Your task to perform on an android device: change notification settings in the gmail app Image 0: 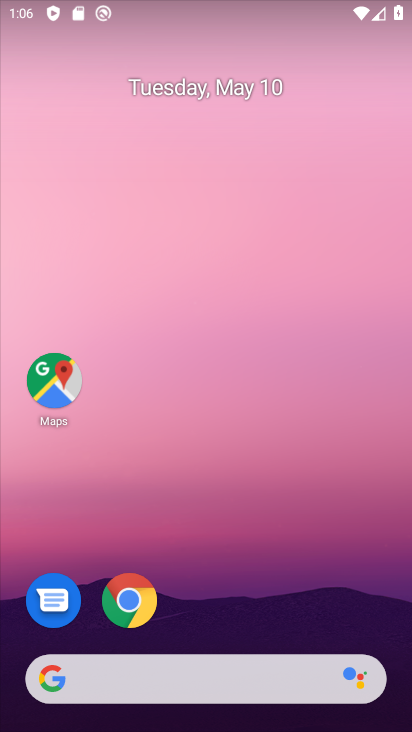
Step 0: drag from (193, 603) to (199, 45)
Your task to perform on an android device: change notification settings in the gmail app Image 1: 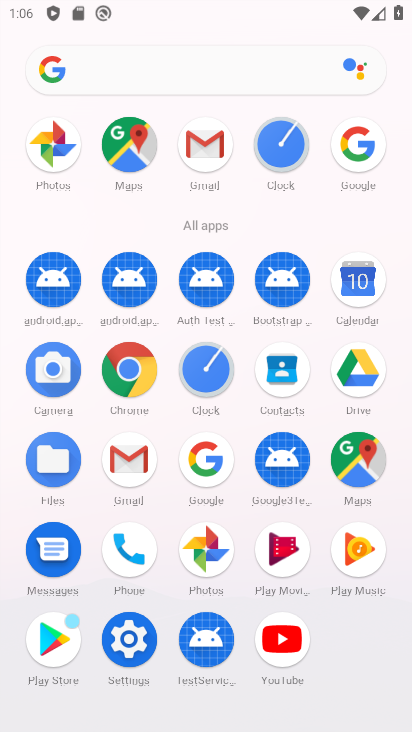
Step 1: click (208, 142)
Your task to perform on an android device: change notification settings in the gmail app Image 2: 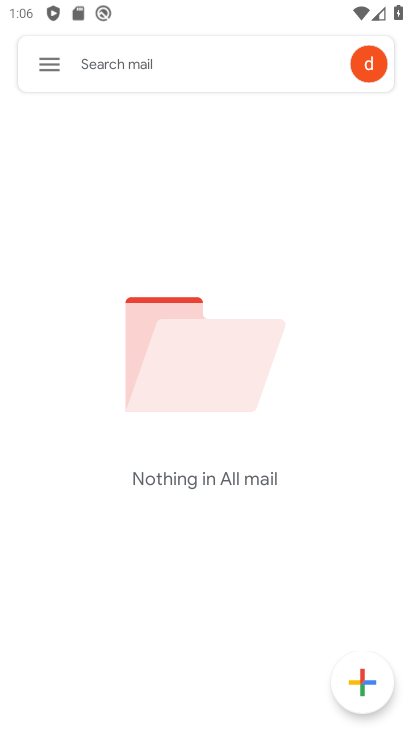
Step 2: click (54, 68)
Your task to perform on an android device: change notification settings in the gmail app Image 3: 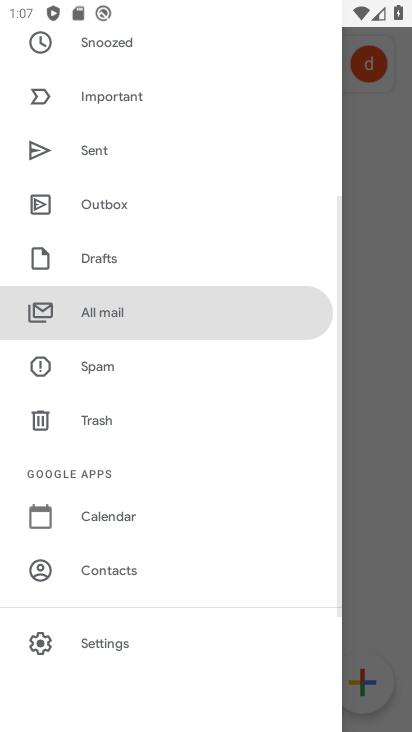
Step 3: click (80, 627)
Your task to perform on an android device: change notification settings in the gmail app Image 4: 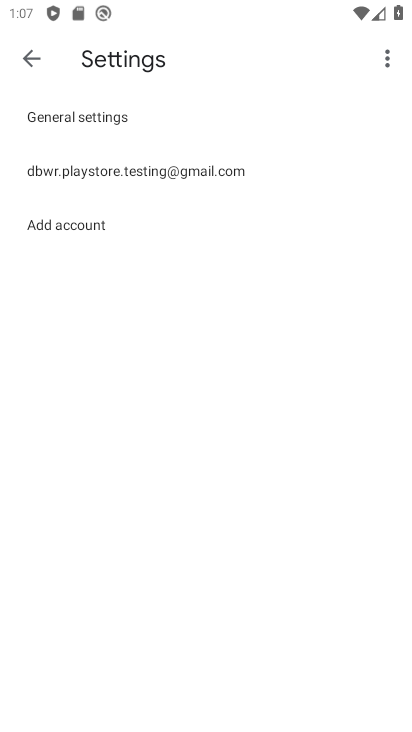
Step 4: click (99, 164)
Your task to perform on an android device: change notification settings in the gmail app Image 5: 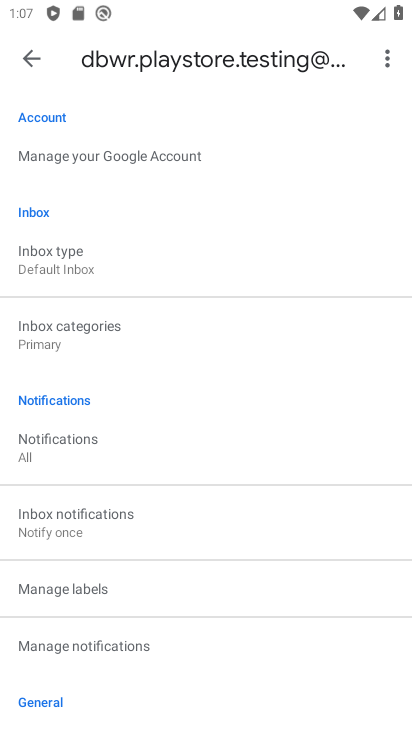
Step 5: click (70, 455)
Your task to perform on an android device: change notification settings in the gmail app Image 6: 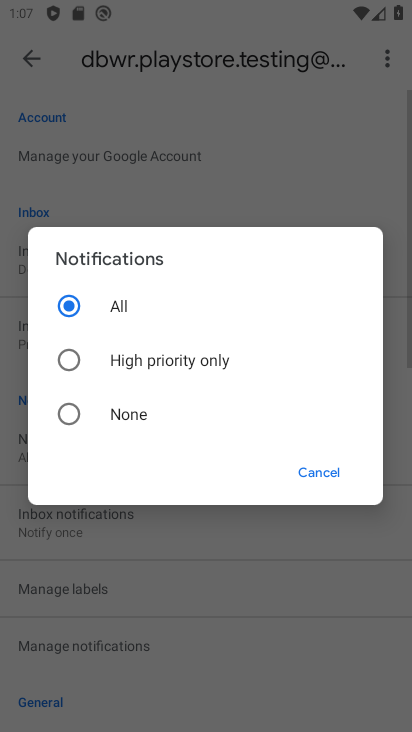
Step 6: click (70, 407)
Your task to perform on an android device: change notification settings in the gmail app Image 7: 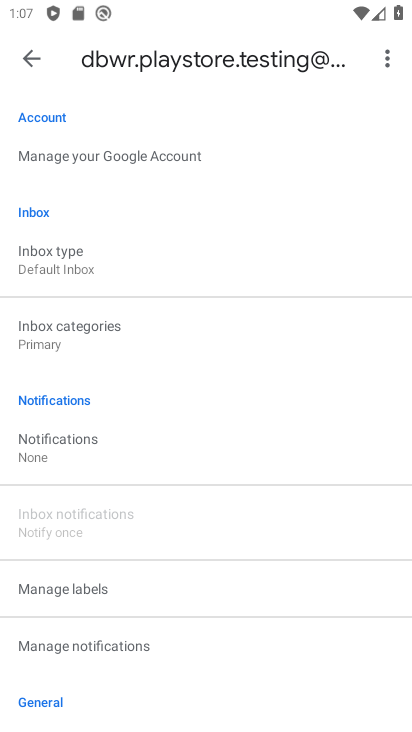
Step 7: task complete